Your task to perform on an android device: turn off translation in the chrome app Image 0: 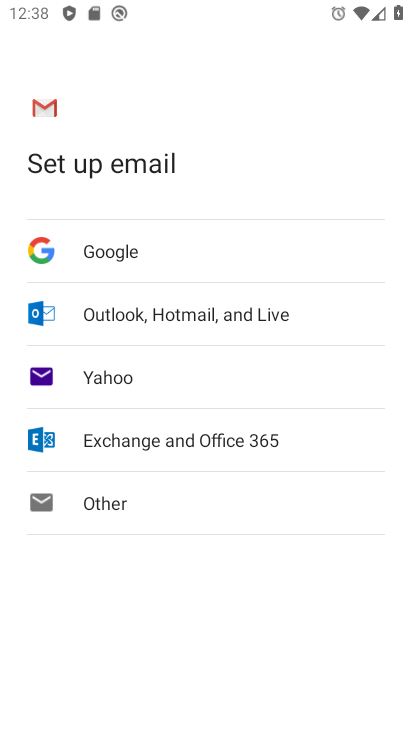
Step 0: press home button
Your task to perform on an android device: turn off translation in the chrome app Image 1: 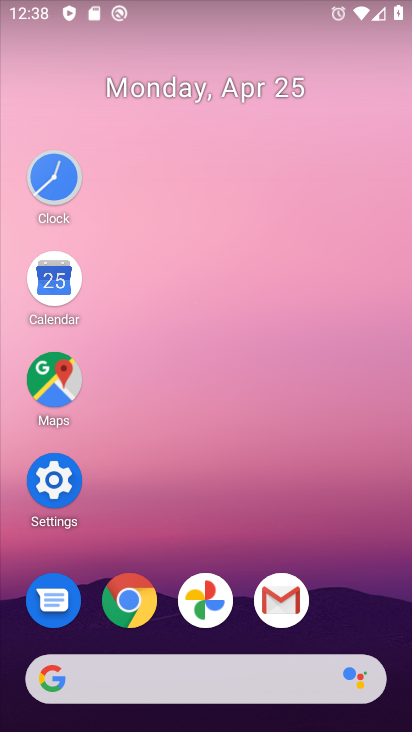
Step 1: click (143, 599)
Your task to perform on an android device: turn off translation in the chrome app Image 2: 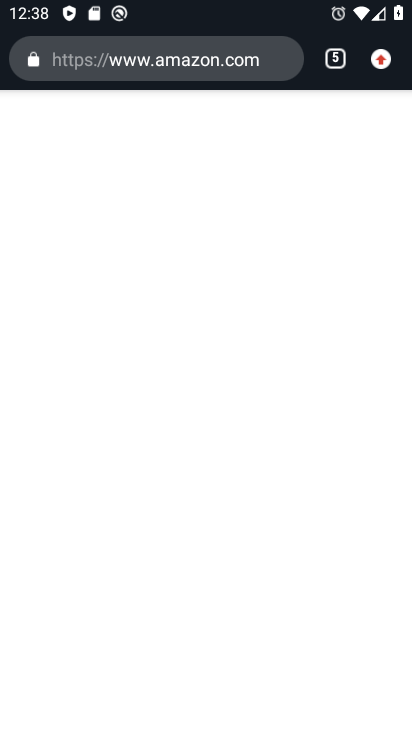
Step 2: click (380, 58)
Your task to perform on an android device: turn off translation in the chrome app Image 3: 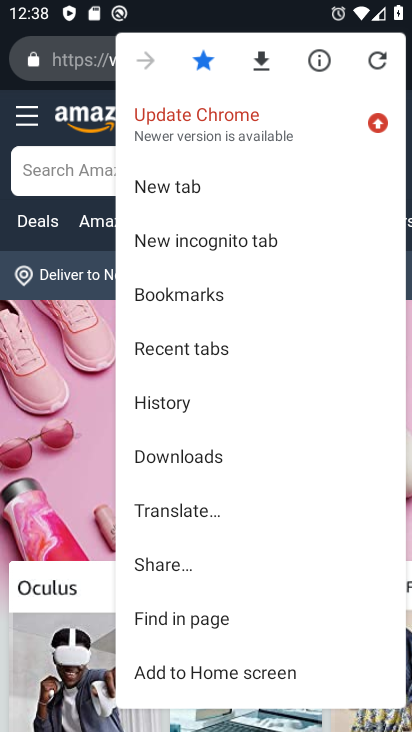
Step 3: drag from (264, 600) to (191, 184)
Your task to perform on an android device: turn off translation in the chrome app Image 4: 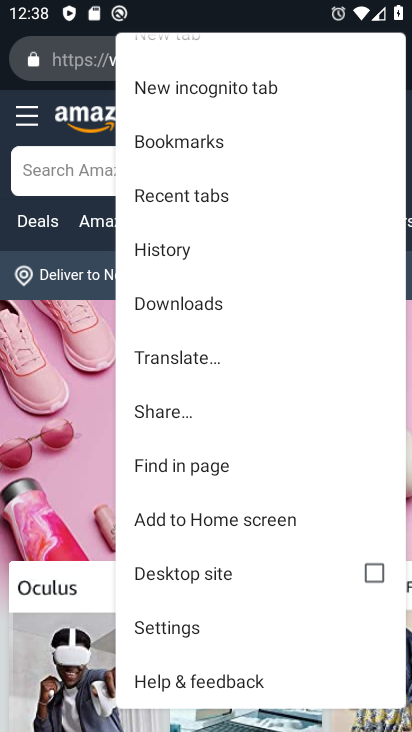
Step 4: click (178, 626)
Your task to perform on an android device: turn off translation in the chrome app Image 5: 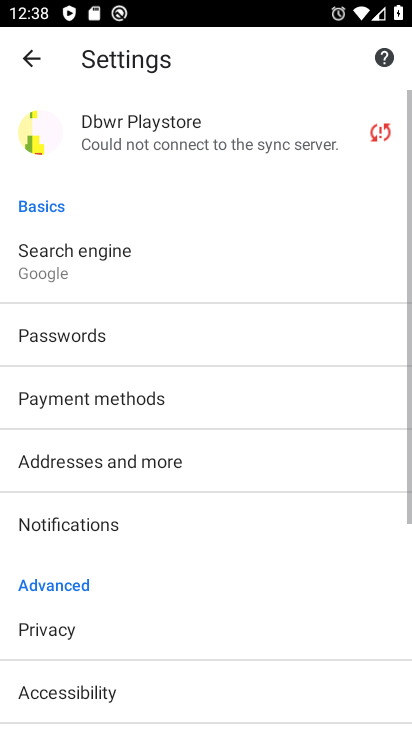
Step 5: drag from (222, 510) to (132, 57)
Your task to perform on an android device: turn off translation in the chrome app Image 6: 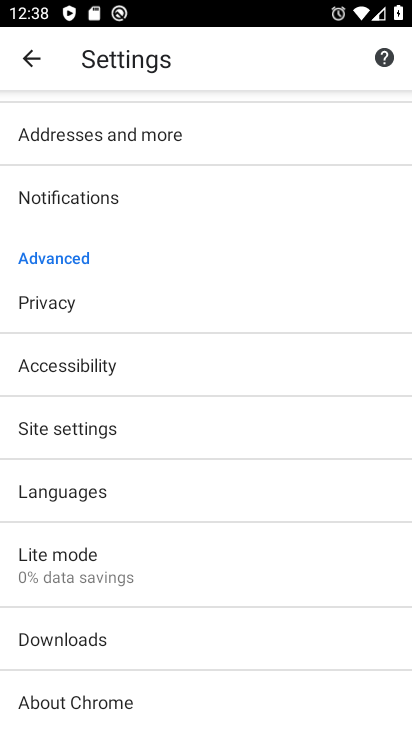
Step 6: click (76, 485)
Your task to perform on an android device: turn off translation in the chrome app Image 7: 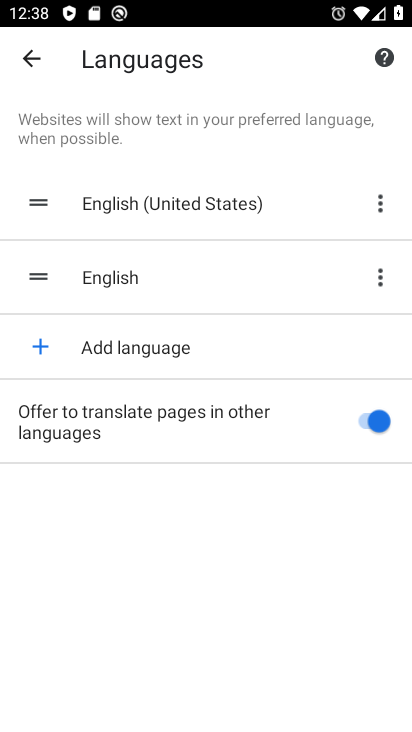
Step 7: click (380, 423)
Your task to perform on an android device: turn off translation in the chrome app Image 8: 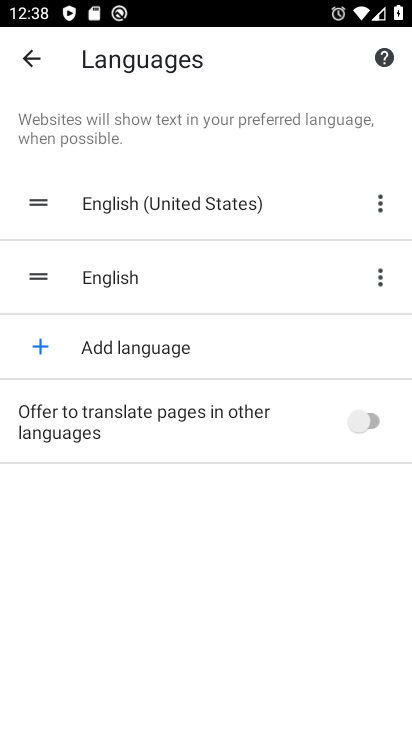
Step 8: task complete